Your task to perform on an android device: Open Chrome and go to settings Image 0: 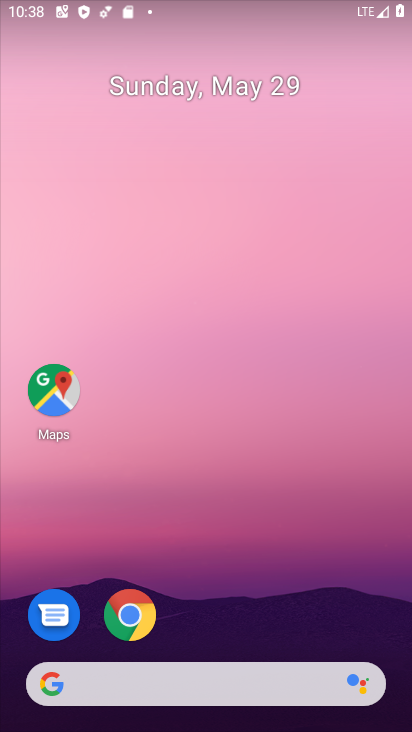
Step 0: drag from (396, 630) to (385, 315)
Your task to perform on an android device: Open Chrome and go to settings Image 1: 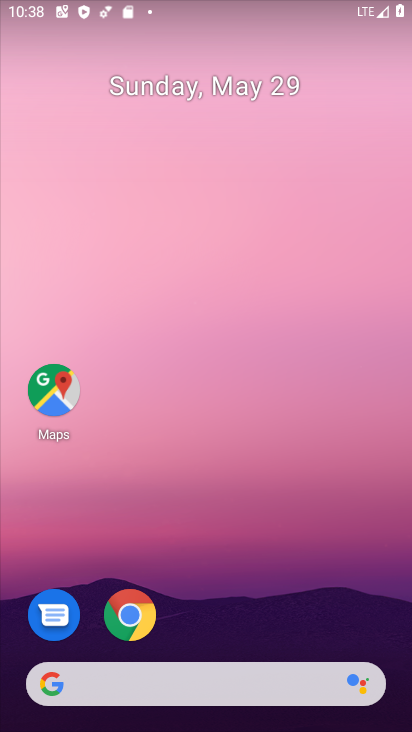
Step 1: drag from (375, 631) to (392, 185)
Your task to perform on an android device: Open Chrome and go to settings Image 2: 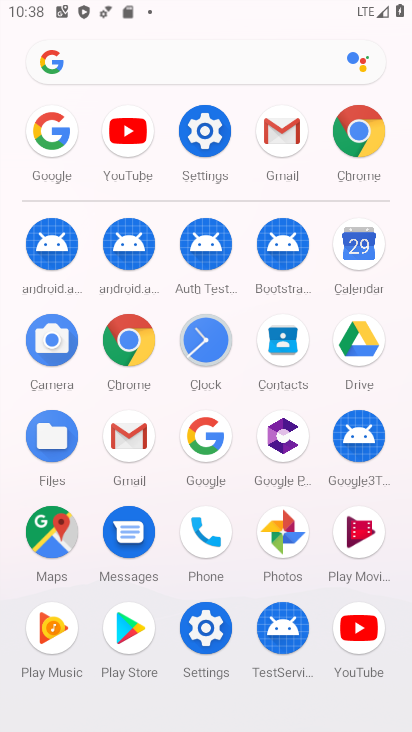
Step 2: click (131, 360)
Your task to perform on an android device: Open Chrome and go to settings Image 3: 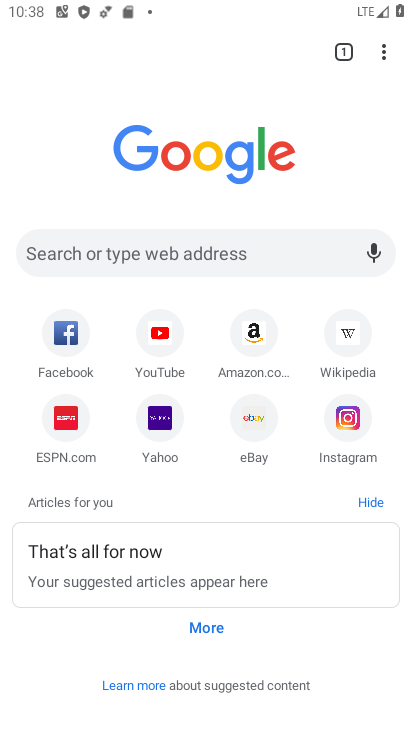
Step 3: click (387, 62)
Your task to perform on an android device: Open Chrome and go to settings Image 4: 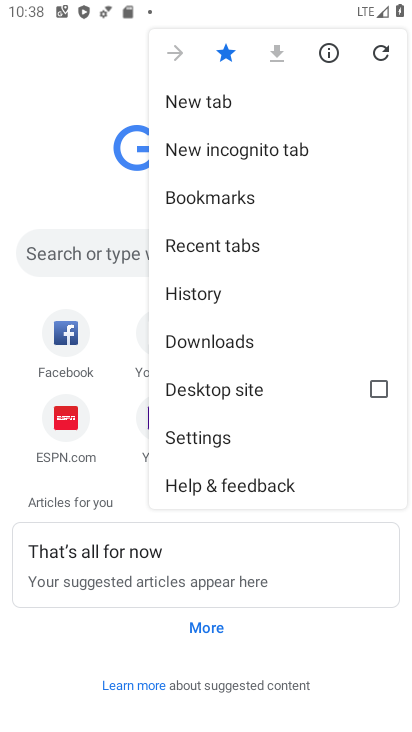
Step 4: click (234, 441)
Your task to perform on an android device: Open Chrome and go to settings Image 5: 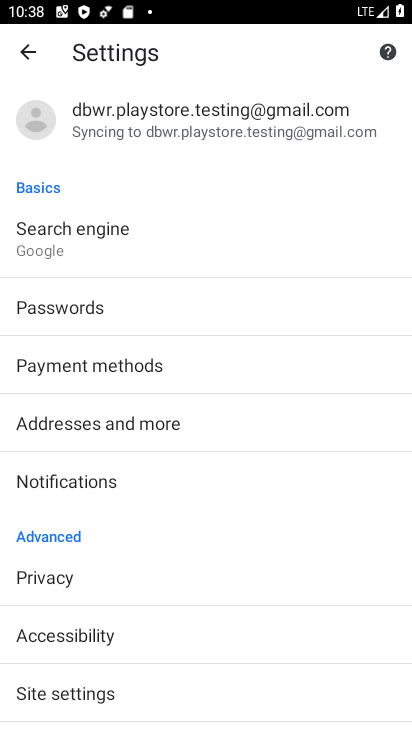
Step 5: task complete